Your task to perform on an android device: remove spam from my inbox in the gmail app Image 0: 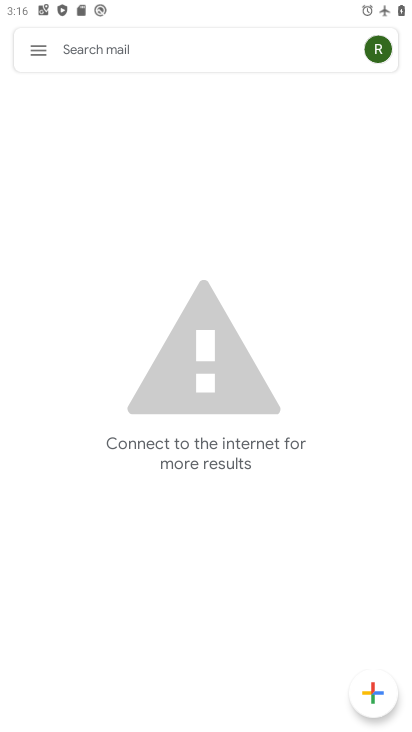
Step 0: click (33, 52)
Your task to perform on an android device: remove spam from my inbox in the gmail app Image 1: 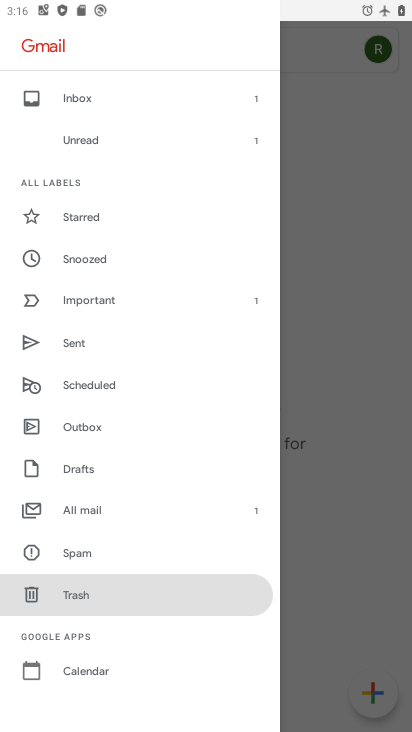
Step 1: click (108, 549)
Your task to perform on an android device: remove spam from my inbox in the gmail app Image 2: 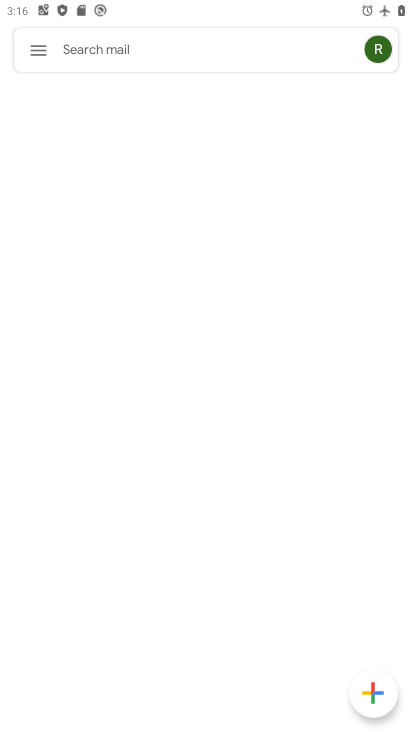
Step 2: task complete